Your task to perform on an android device: Go to Yahoo.com Image 0: 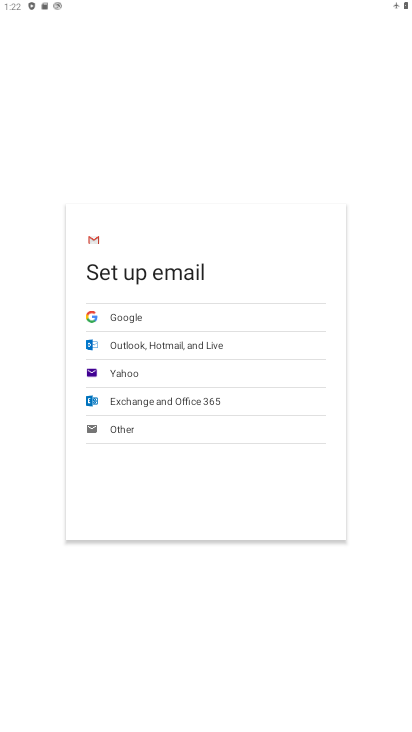
Step 0: drag from (217, 548) to (316, 222)
Your task to perform on an android device: Go to Yahoo.com Image 1: 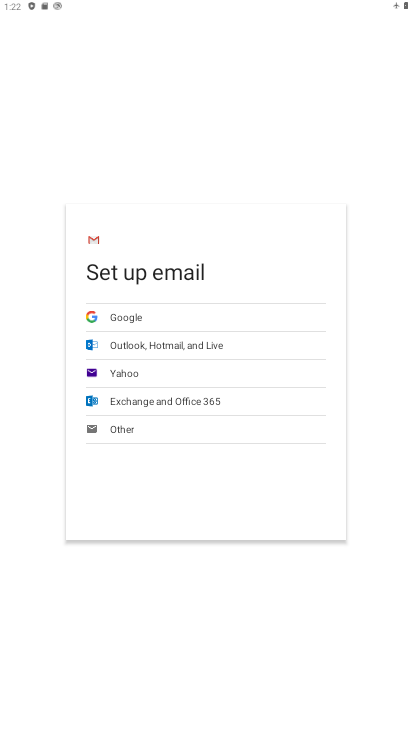
Step 1: press home button
Your task to perform on an android device: Go to Yahoo.com Image 2: 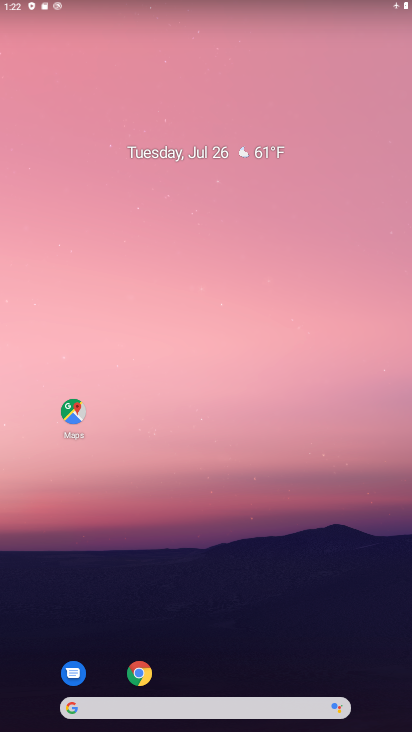
Step 2: drag from (156, 674) to (163, 171)
Your task to perform on an android device: Go to Yahoo.com Image 3: 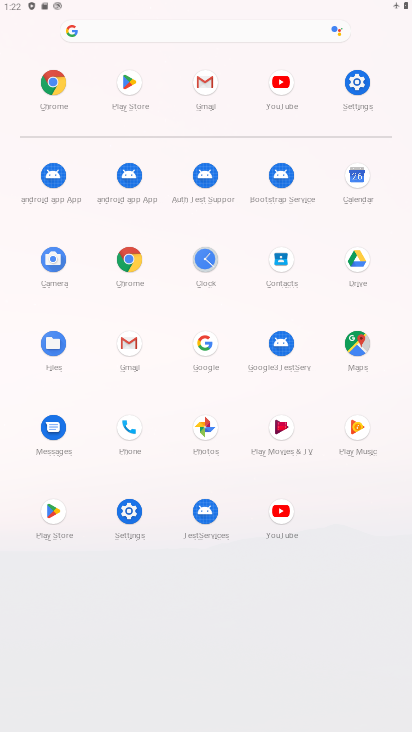
Step 3: click (173, 30)
Your task to perform on an android device: Go to Yahoo.com Image 4: 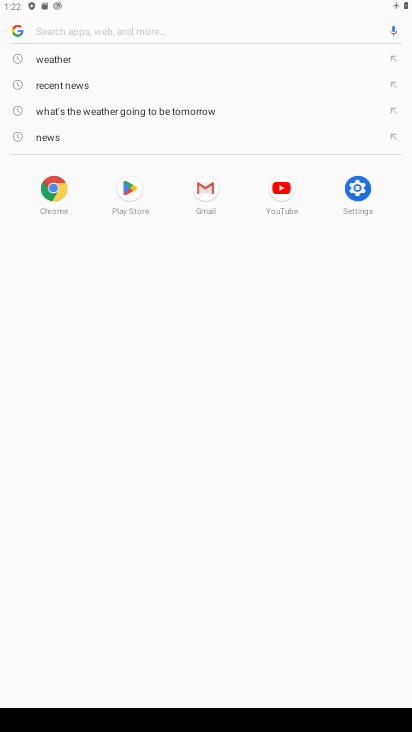
Step 4: type "Yahoo.com"
Your task to perform on an android device: Go to Yahoo.com Image 5: 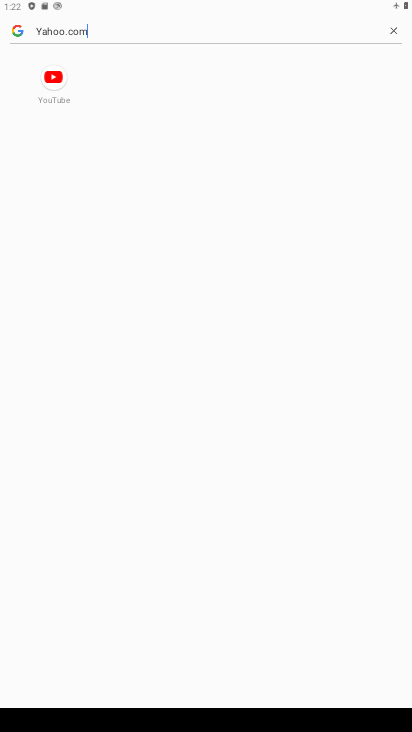
Step 5: type ""
Your task to perform on an android device: Go to Yahoo.com Image 6: 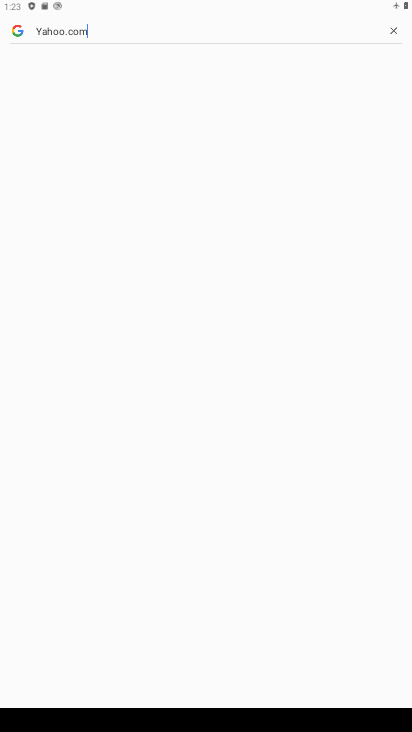
Step 6: click (165, 158)
Your task to perform on an android device: Go to Yahoo.com Image 7: 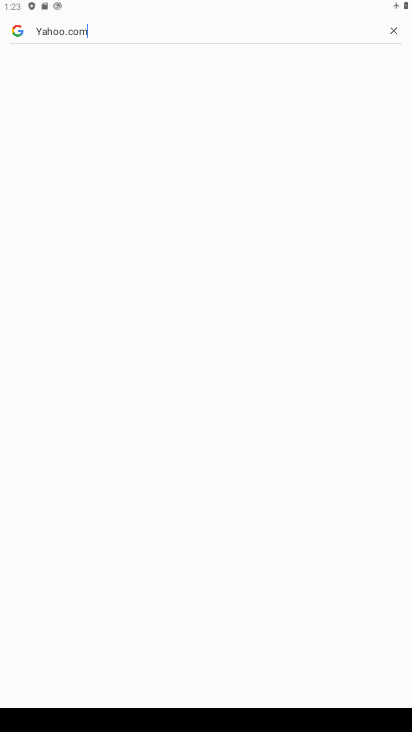
Step 7: task complete